Your task to perform on an android device: What's the weather today? Image 0: 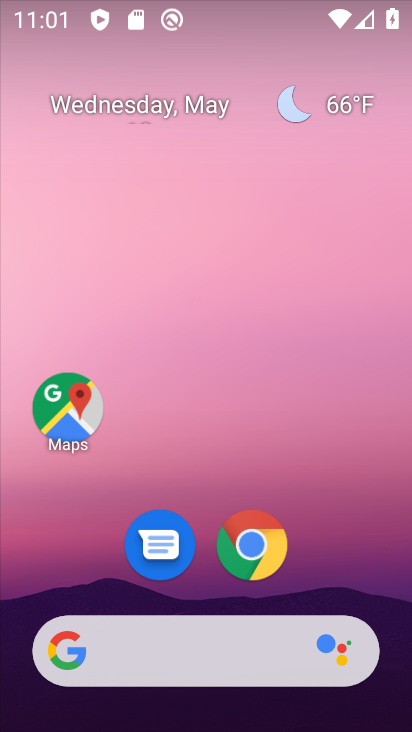
Step 0: click (283, 661)
Your task to perform on an android device: What's the weather today? Image 1: 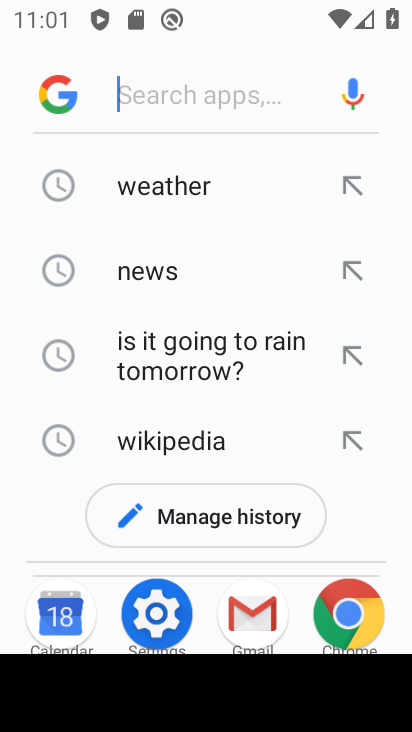
Step 1: type "What's the weather today?"
Your task to perform on an android device: What's the weather today? Image 2: 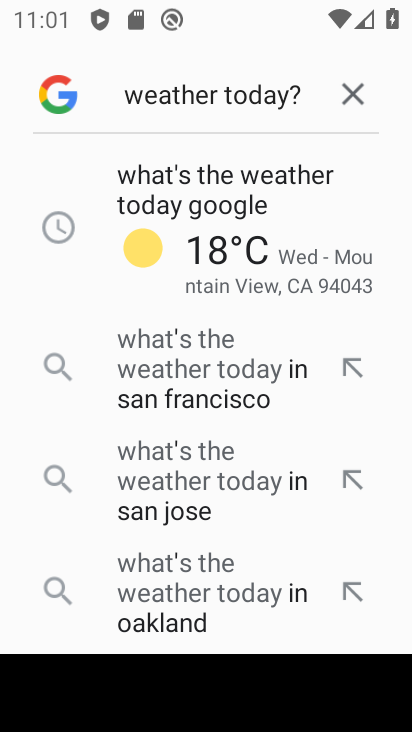
Step 2: click (213, 182)
Your task to perform on an android device: What's the weather today? Image 3: 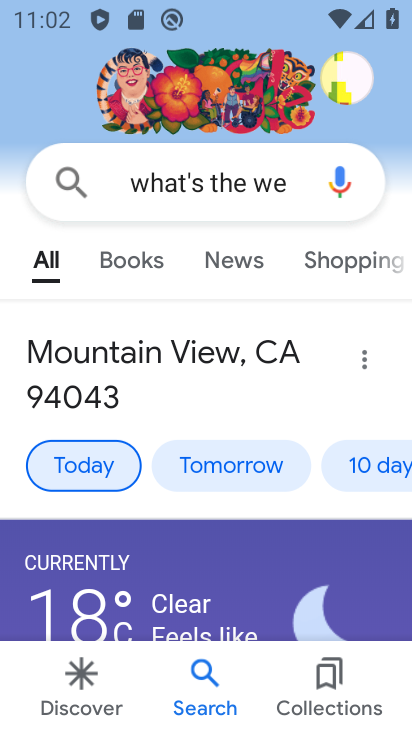
Step 3: task complete